Your task to perform on an android device: Google the capital of Ecuador Image 0: 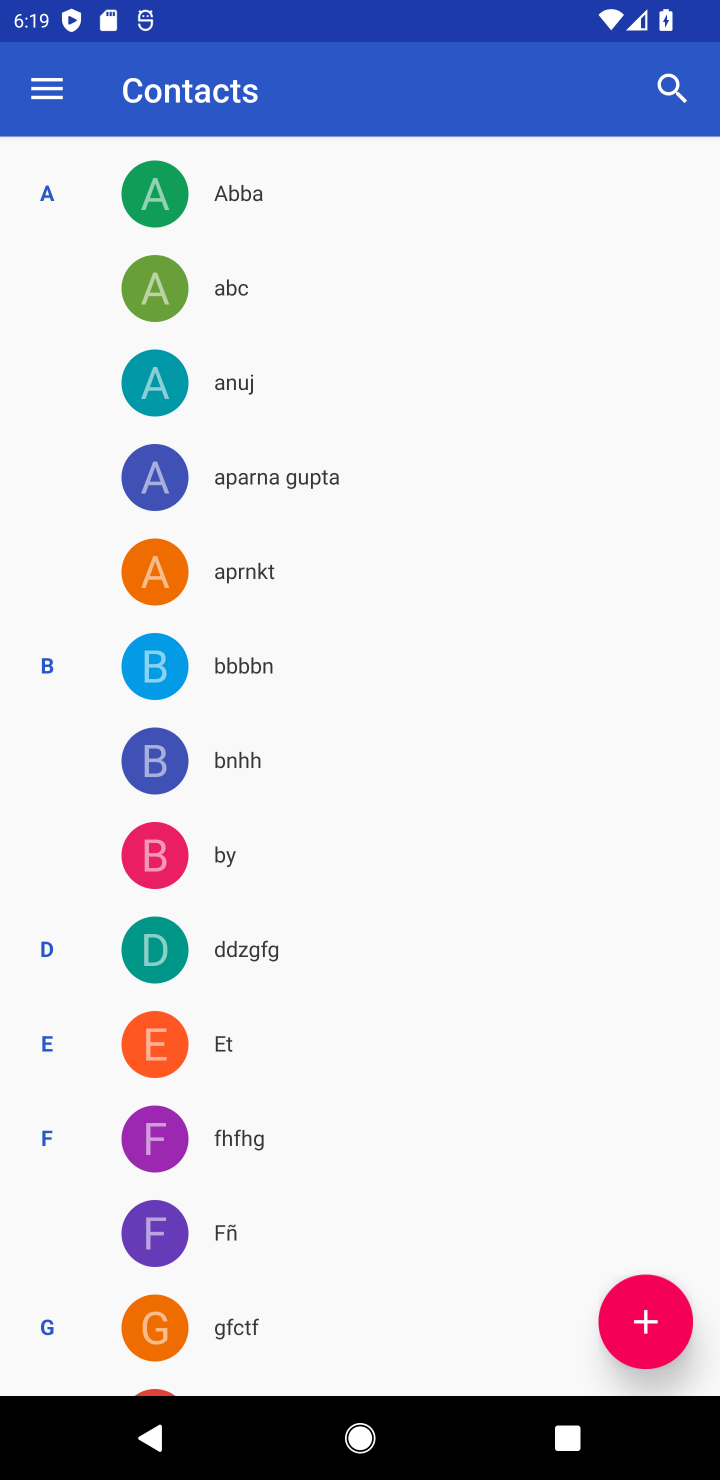
Step 0: press home button
Your task to perform on an android device: Google the capital of Ecuador Image 1: 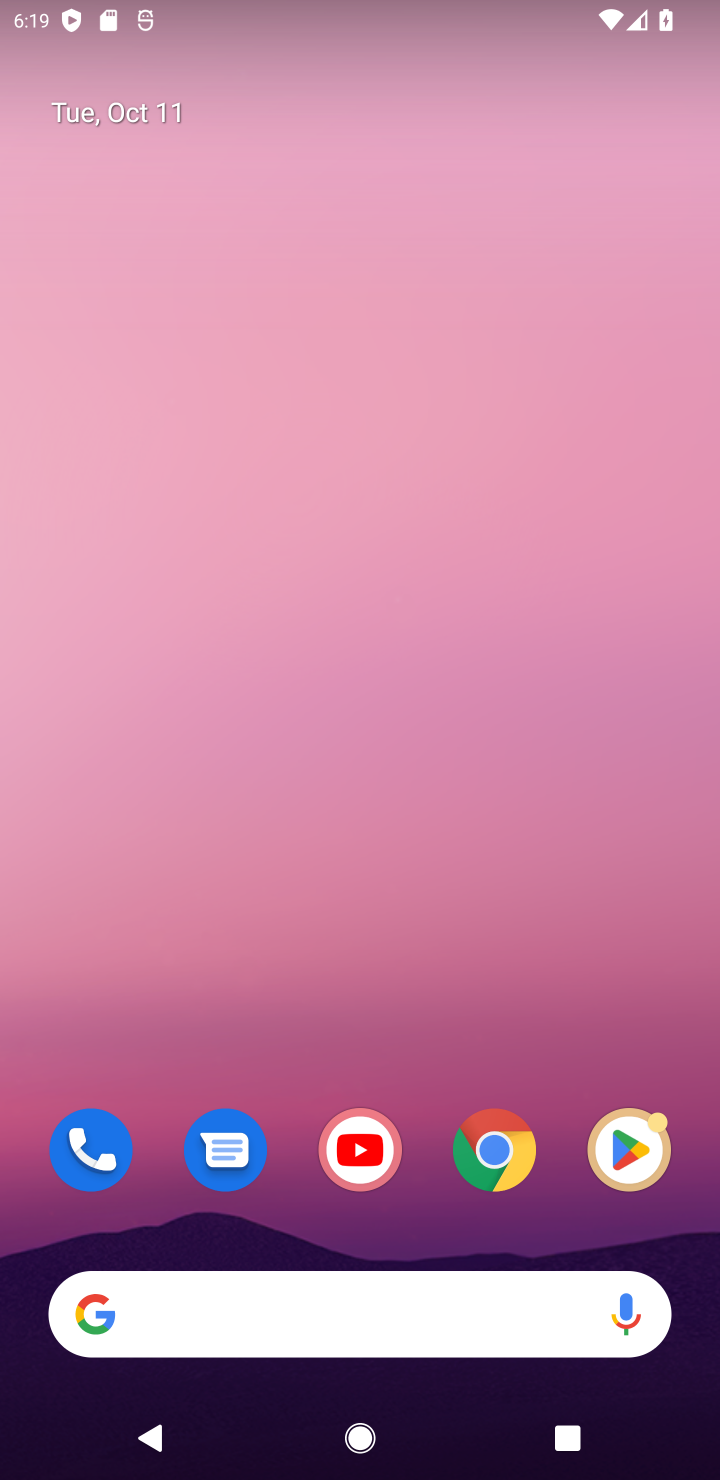
Step 1: click (497, 1156)
Your task to perform on an android device: Google the capital of Ecuador Image 2: 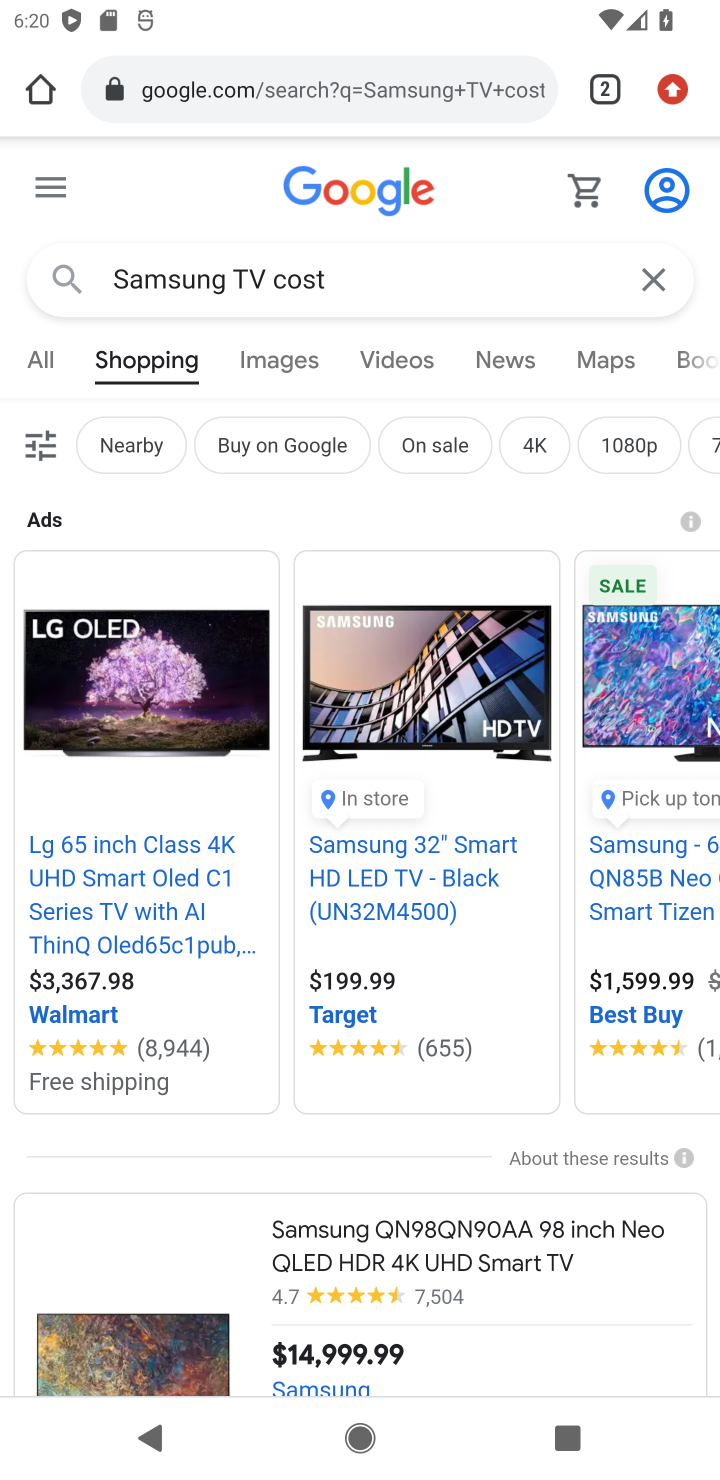
Step 2: click (339, 271)
Your task to perform on an android device: Google the capital of Ecuador Image 3: 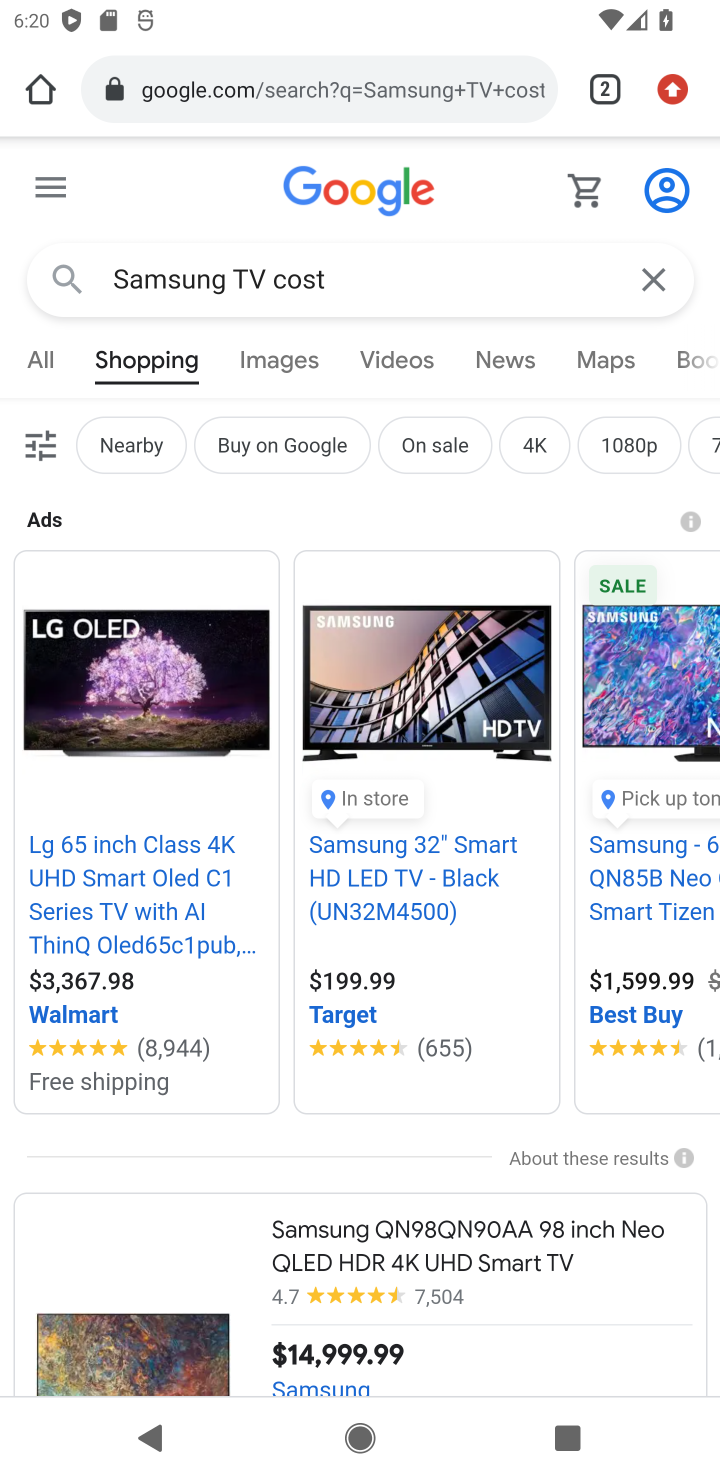
Step 3: click (656, 292)
Your task to perform on an android device: Google the capital of Ecuador Image 4: 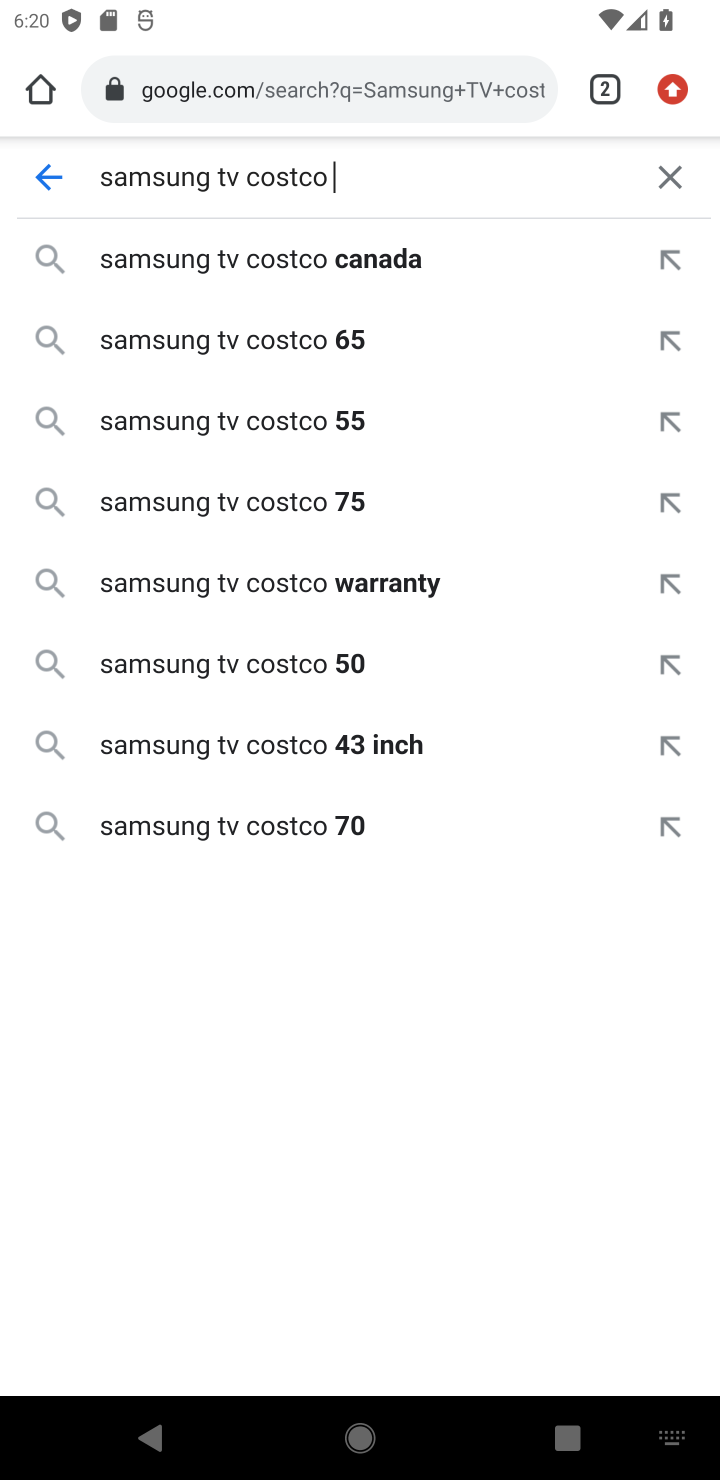
Step 4: click (655, 176)
Your task to perform on an android device: Google the capital of Ecuador Image 5: 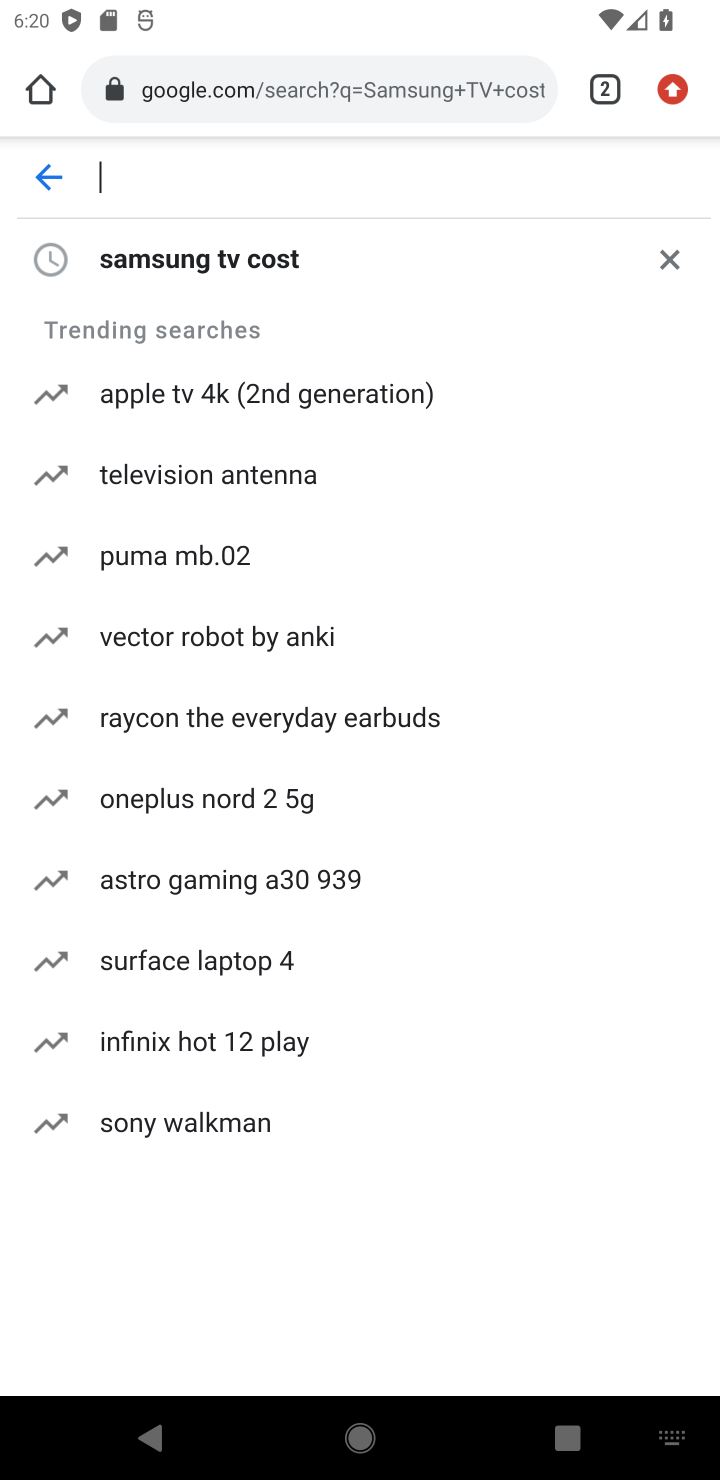
Step 5: type "capital of Ecuador"
Your task to perform on an android device: Google the capital of Ecuador Image 6: 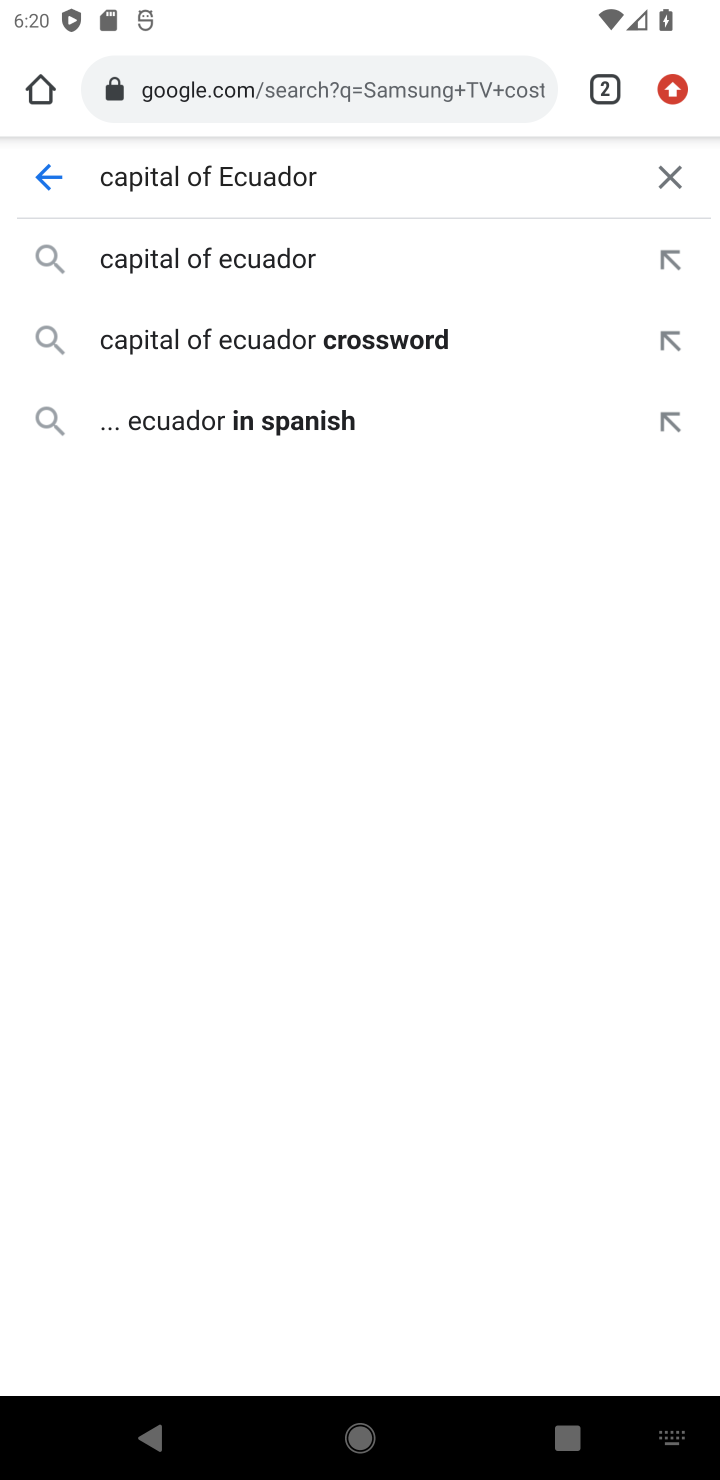
Step 6: click (262, 264)
Your task to perform on an android device: Google the capital of Ecuador Image 7: 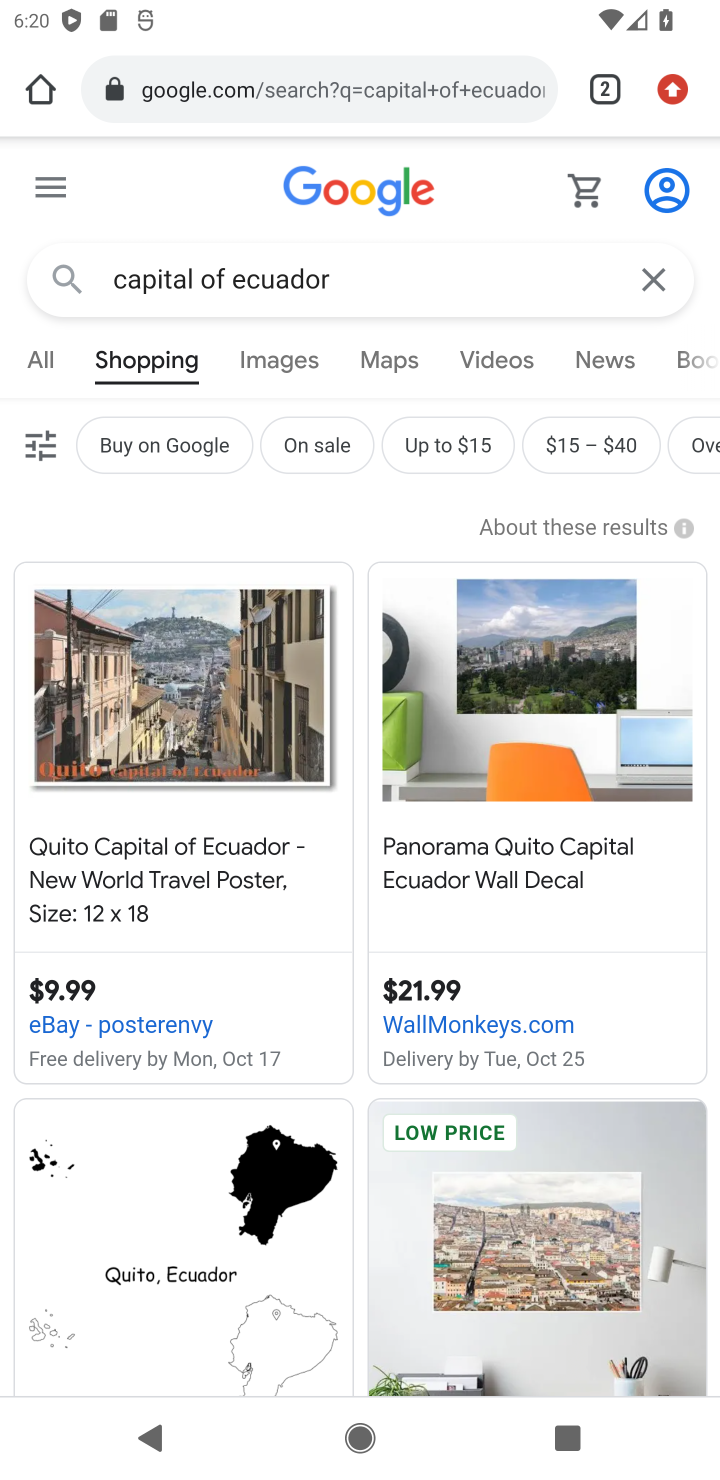
Step 7: task complete